Your task to perform on an android device: turn off location Image 0: 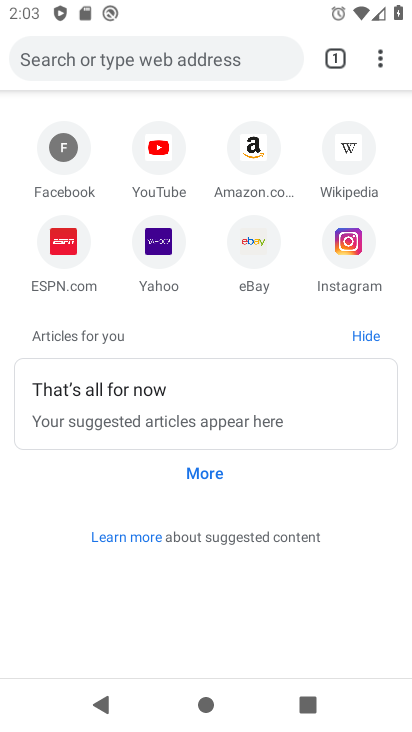
Step 0: press home button
Your task to perform on an android device: turn off location Image 1: 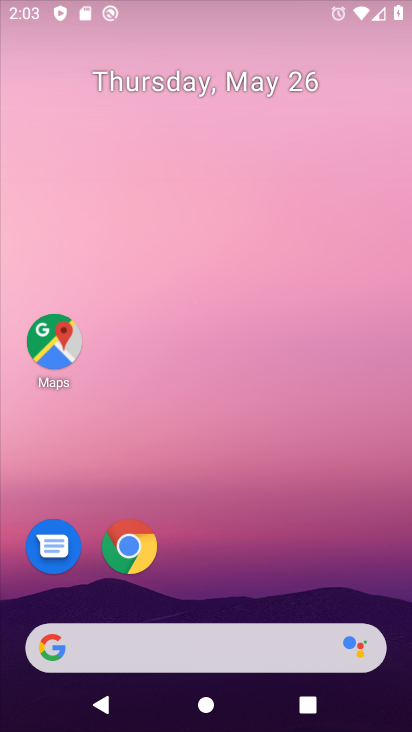
Step 1: drag from (237, 579) to (239, 2)
Your task to perform on an android device: turn off location Image 2: 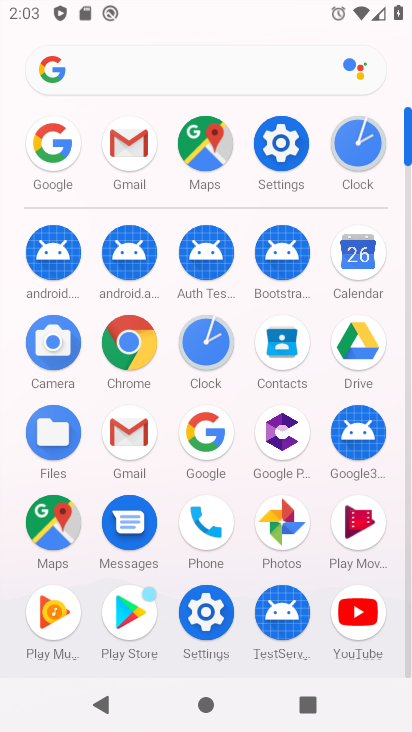
Step 2: click (281, 146)
Your task to perform on an android device: turn off location Image 3: 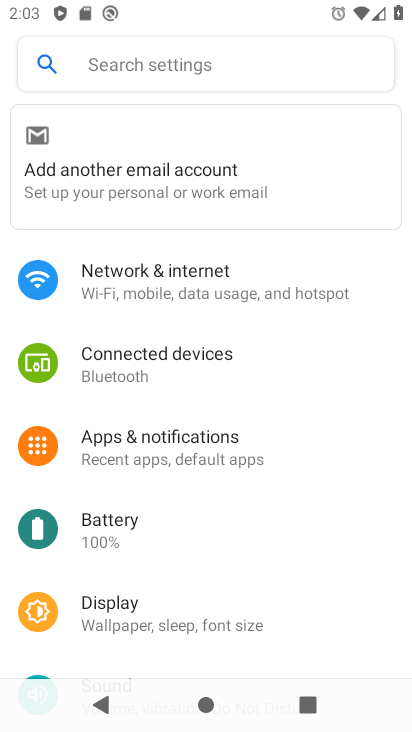
Step 3: drag from (237, 573) to (244, 165)
Your task to perform on an android device: turn off location Image 4: 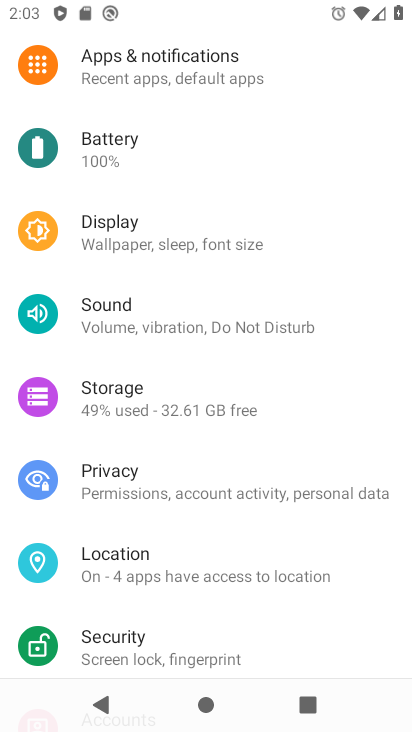
Step 4: click (166, 559)
Your task to perform on an android device: turn off location Image 5: 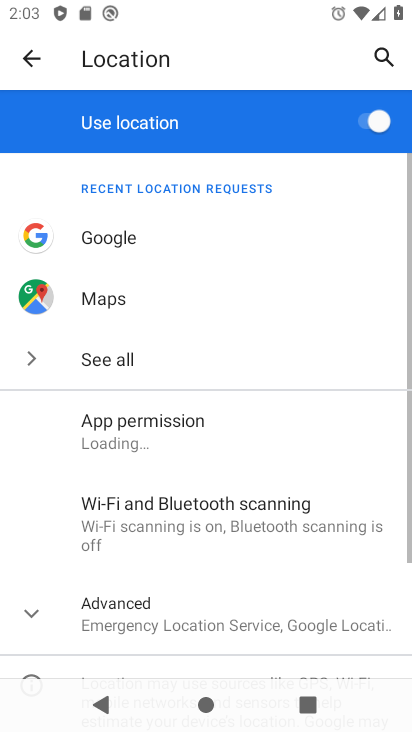
Step 5: click (375, 117)
Your task to perform on an android device: turn off location Image 6: 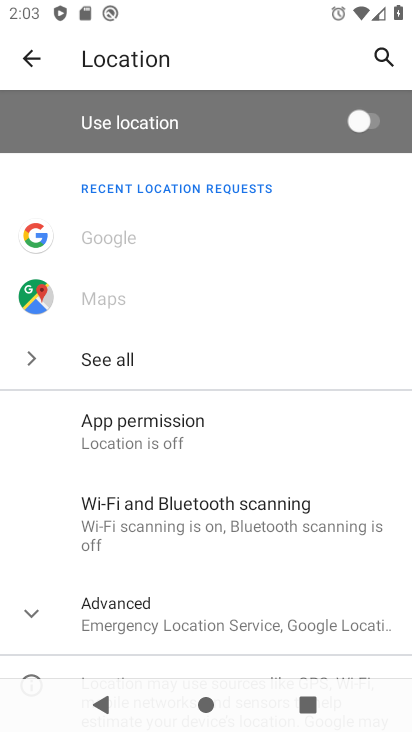
Step 6: task complete